Your task to perform on an android device: turn off picture-in-picture Image 0: 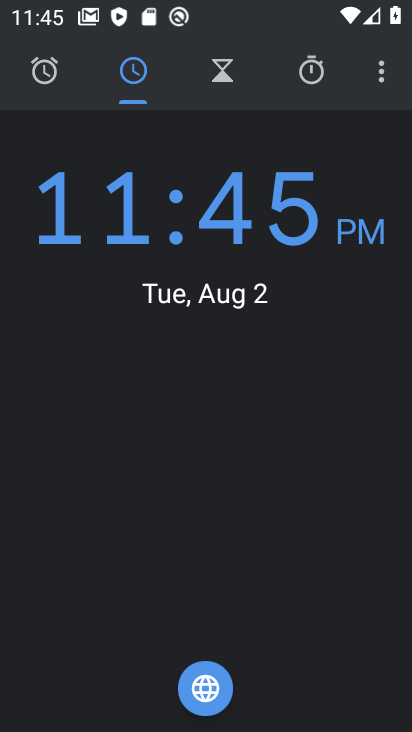
Step 0: drag from (291, 582) to (312, 311)
Your task to perform on an android device: turn off picture-in-picture Image 1: 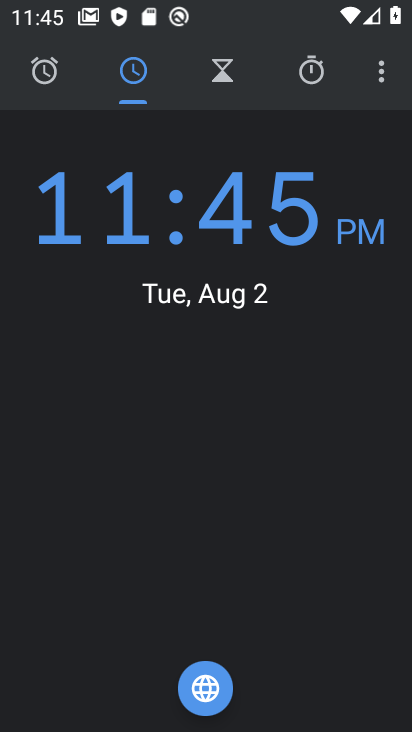
Step 1: press home button
Your task to perform on an android device: turn off picture-in-picture Image 2: 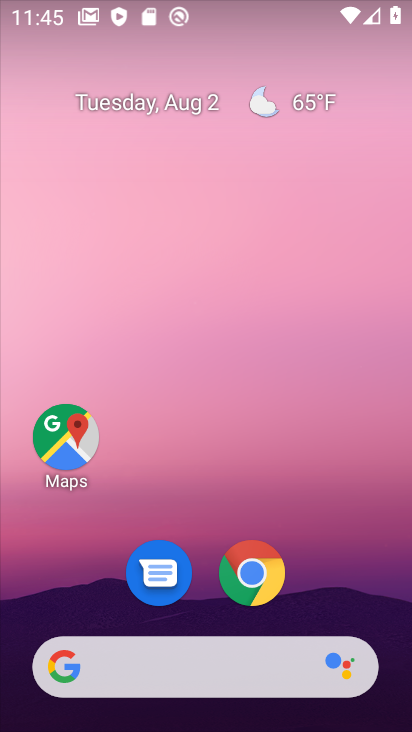
Step 2: click (251, 67)
Your task to perform on an android device: turn off picture-in-picture Image 3: 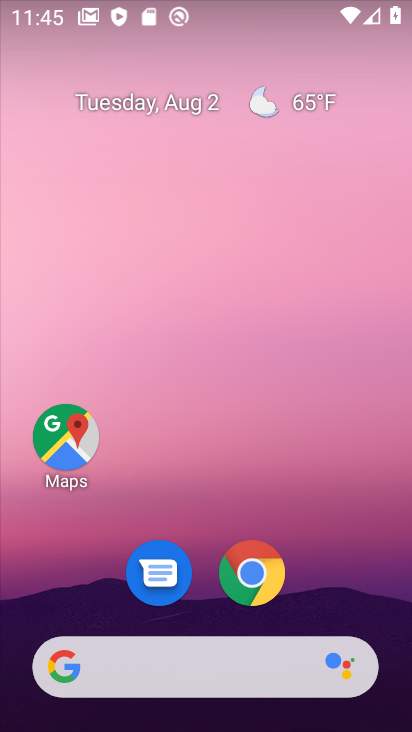
Step 3: drag from (194, 613) to (177, 22)
Your task to perform on an android device: turn off picture-in-picture Image 4: 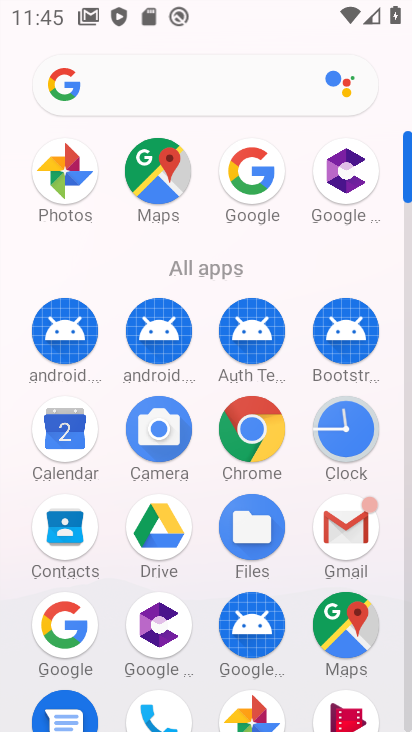
Step 4: drag from (204, 592) to (208, 163)
Your task to perform on an android device: turn off picture-in-picture Image 5: 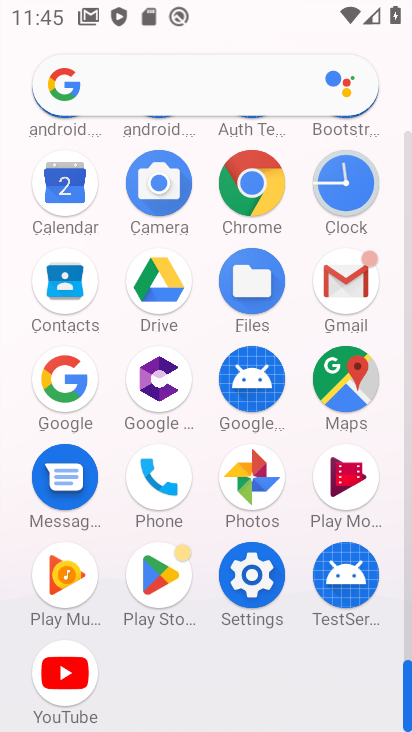
Step 5: click (251, 583)
Your task to perform on an android device: turn off picture-in-picture Image 6: 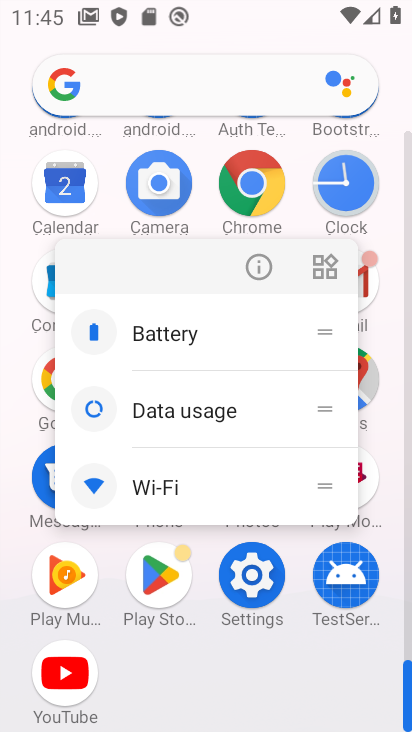
Step 6: click (254, 265)
Your task to perform on an android device: turn off picture-in-picture Image 7: 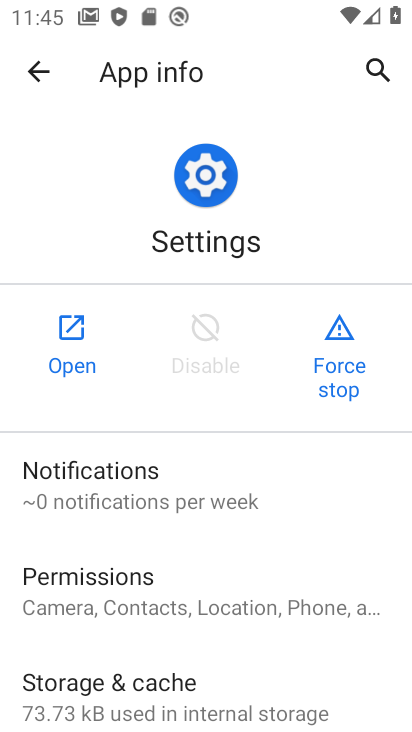
Step 7: click (87, 330)
Your task to perform on an android device: turn off picture-in-picture Image 8: 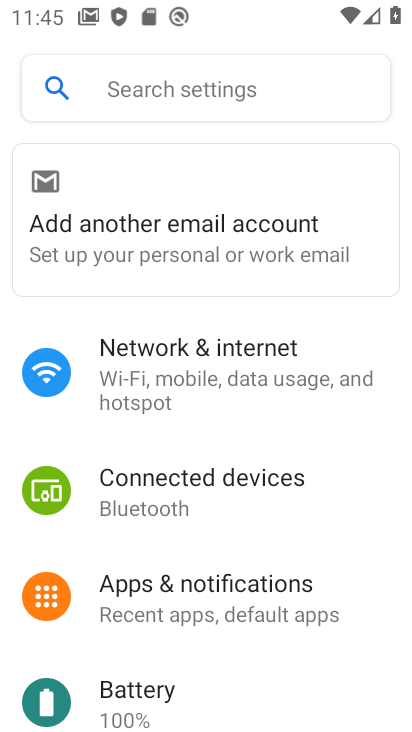
Step 8: click (192, 597)
Your task to perform on an android device: turn off picture-in-picture Image 9: 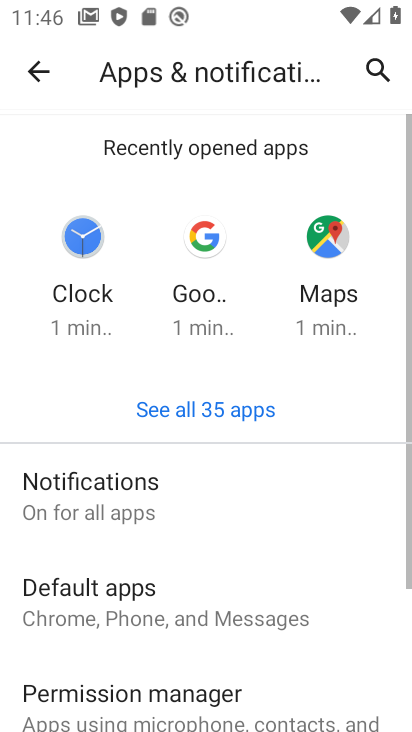
Step 9: drag from (191, 612) to (237, 137)
Your task to perform on an android device: turn off picture-in-picture Image 10: 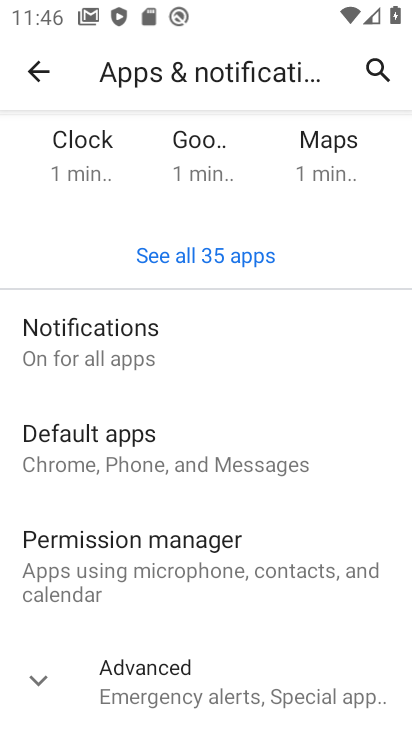
Step 10: drag from (123, 630) to (207, 163)
Your task to perform on an android device: turn off picture-in-picture Image 11: 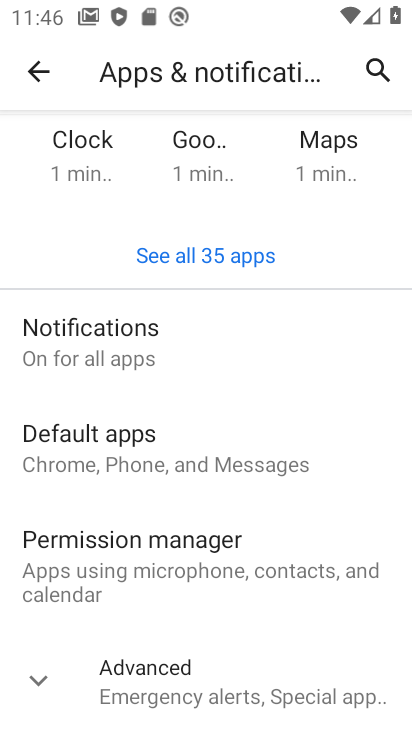
Step 11: drag from (75, 653) to (149, 419)
Your task to perform on an android device: turn off picture-in-picture Image 12: 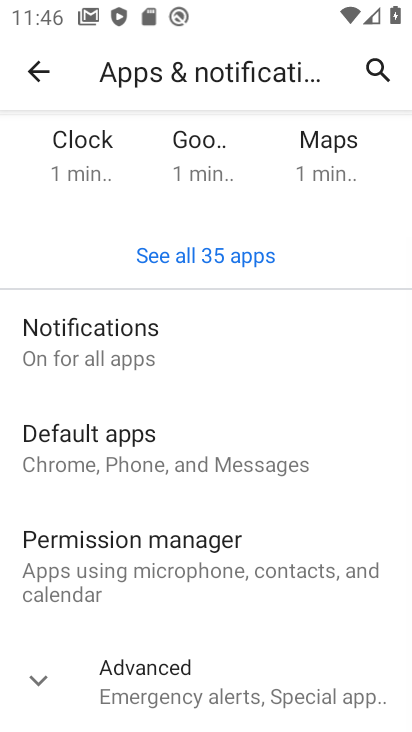
Step 12: click (163, 661)
Your task to perform on an android device: turn off picture-in-picture Image 13: 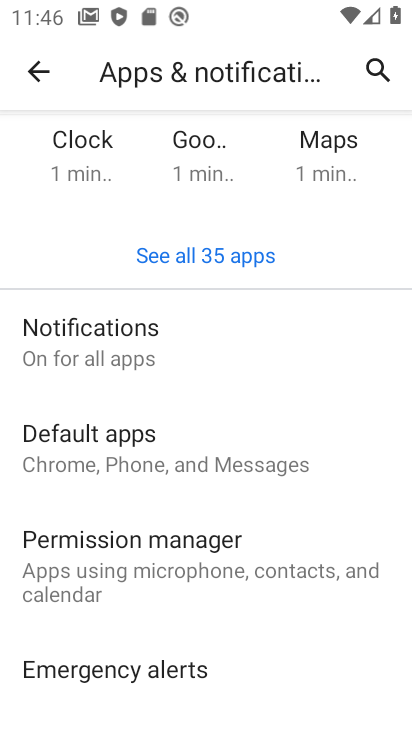
Step 13: drag from (110, 489) to (220, 149)
Your task to perform on an android device: turn off picture-in-picture Image 14: 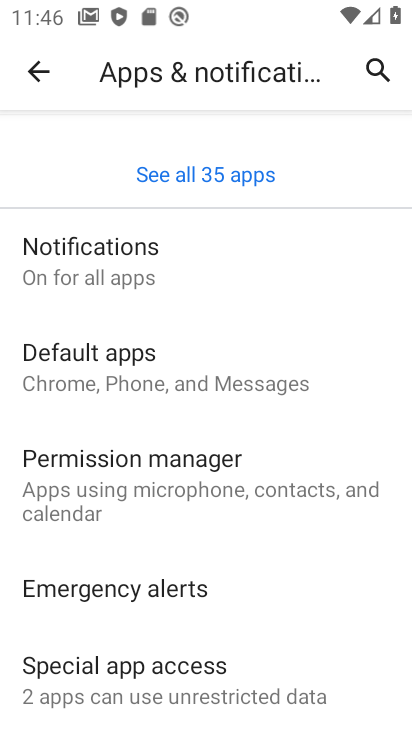
Step 14: drag from (196, 669) to (227, 354)
Your task to perform on an android device: turn off picture-in-picture Image 15: 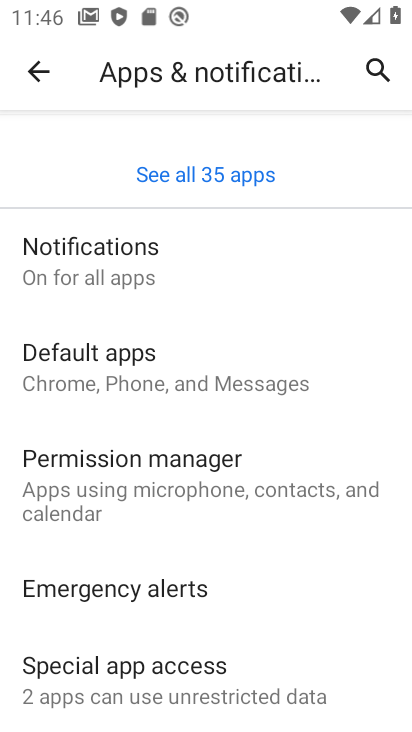
Step 15: click (201, 675)
Your task to perform on an android device: turn off picture-in-picture Image 16: 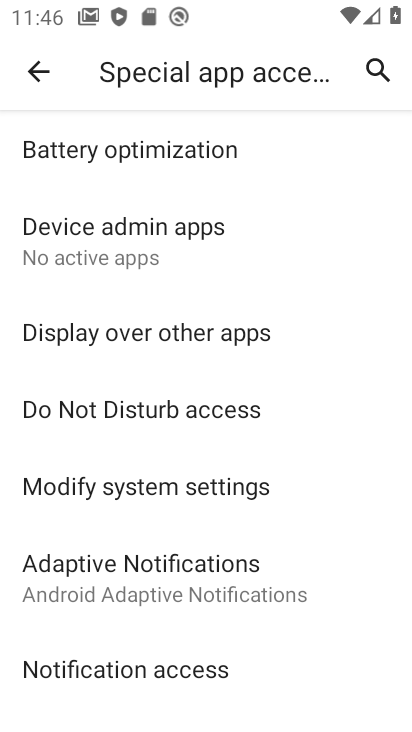
Step 16: drag from (149, 195) to (270, 669)
Your task to perform on an android device: turn off picture-in-picture Image 17: 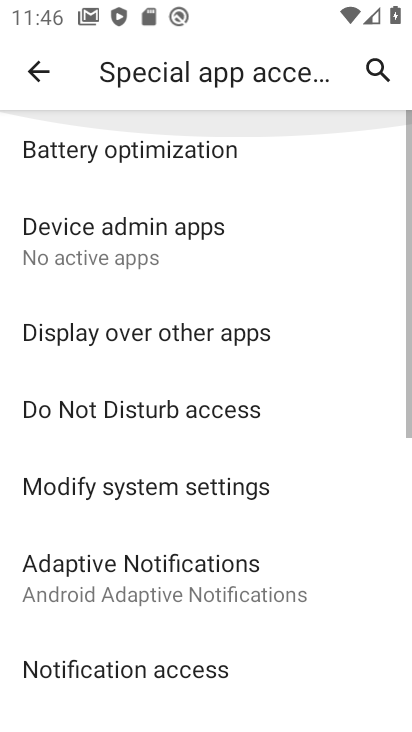
Step 17: drag from (221, 604) to (207, 220)
Your task to perform on an android device: turn off picture-in-picture Image 18: 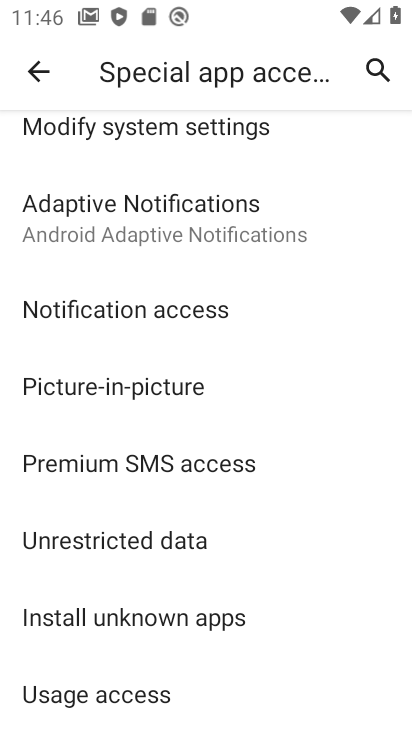
Step 18: click (109, 391)
Your task to perform on an android device: turn off picture-in-picture Image 19: 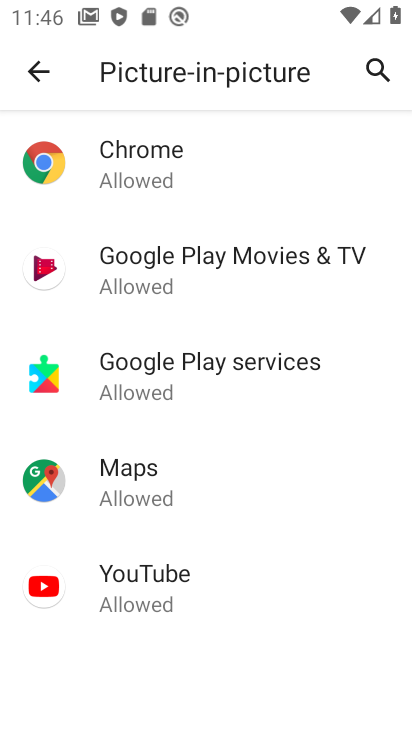
Step 19: task complete